Your task to perform on an android device: Search for seafood restaurants on Google Maps Image 0: 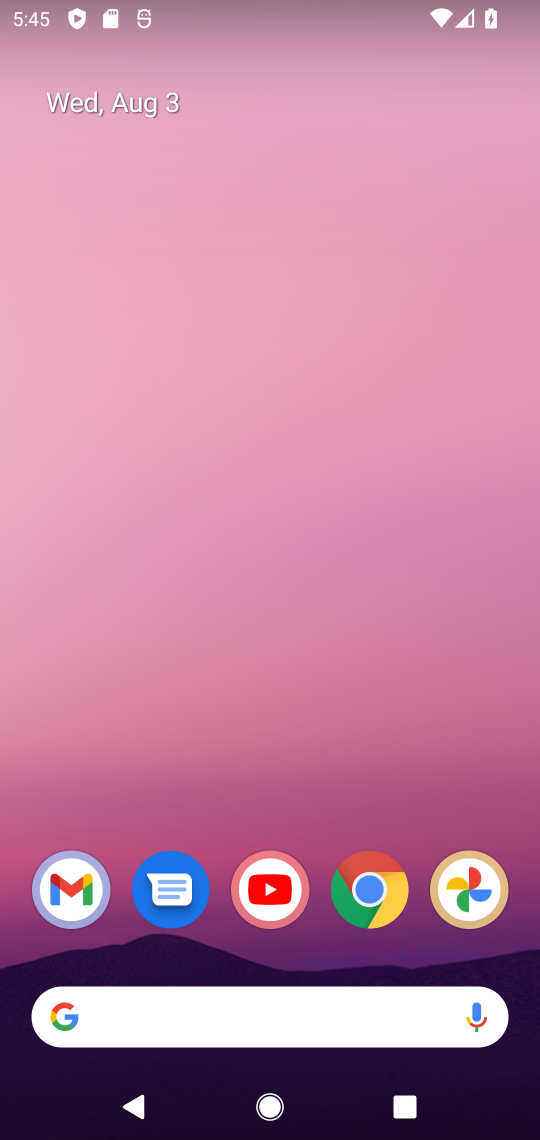
Step 0: drag from (258, 814) to (297, 12)
Your task to perform on an android device: Search for seafood restaurants on Google Maps Image 1: 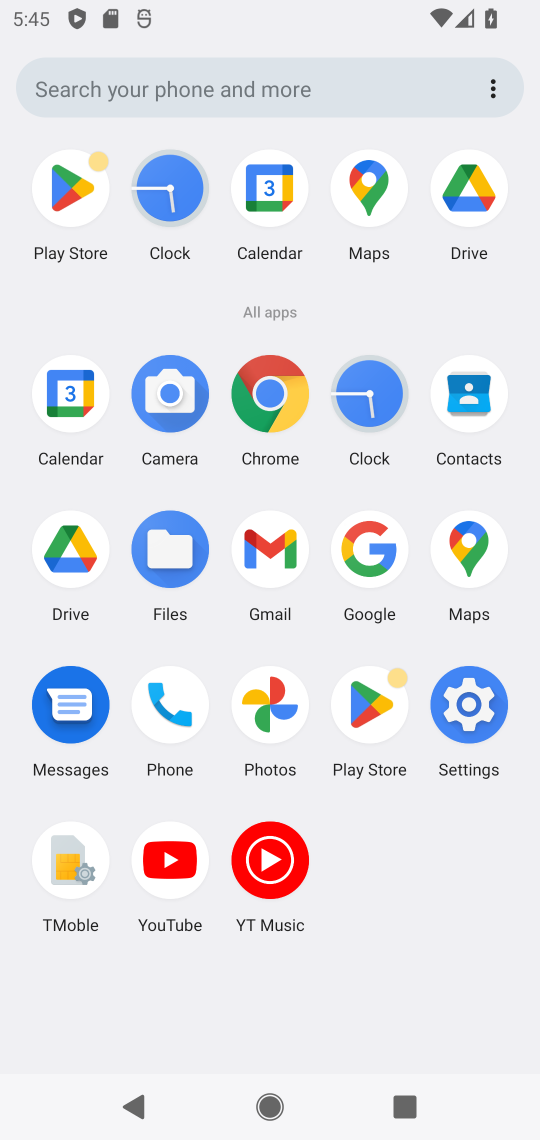
Step 1: click (372, 193)
Your task to perform on an android device: Search for seafood restaurants on Google Maps Image 2: 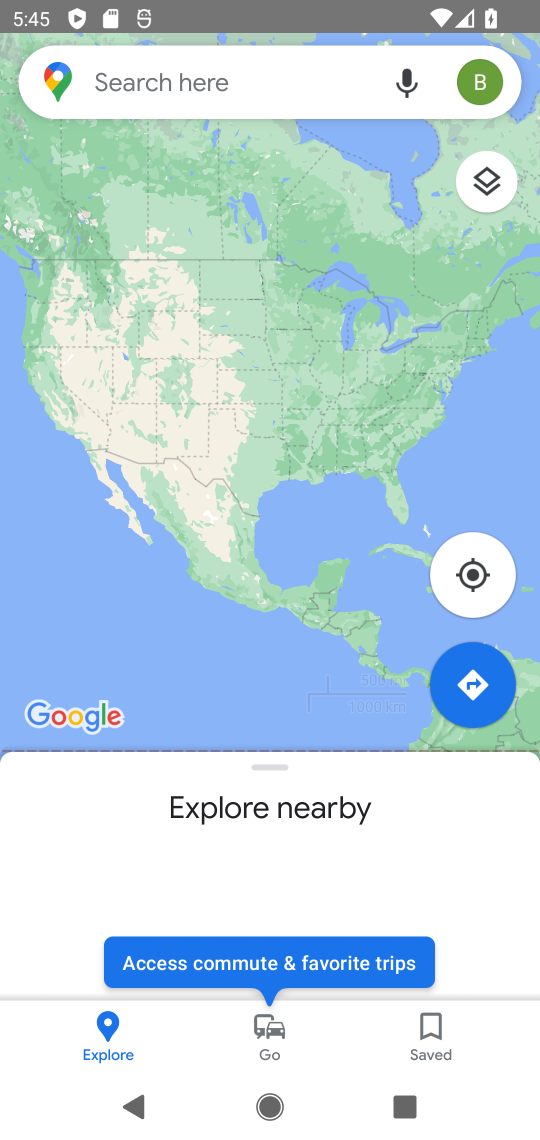
Step 2: click (324, 85)
Your task to perform on an android device: Search for seafood restaurants on Google Maps Image 3: 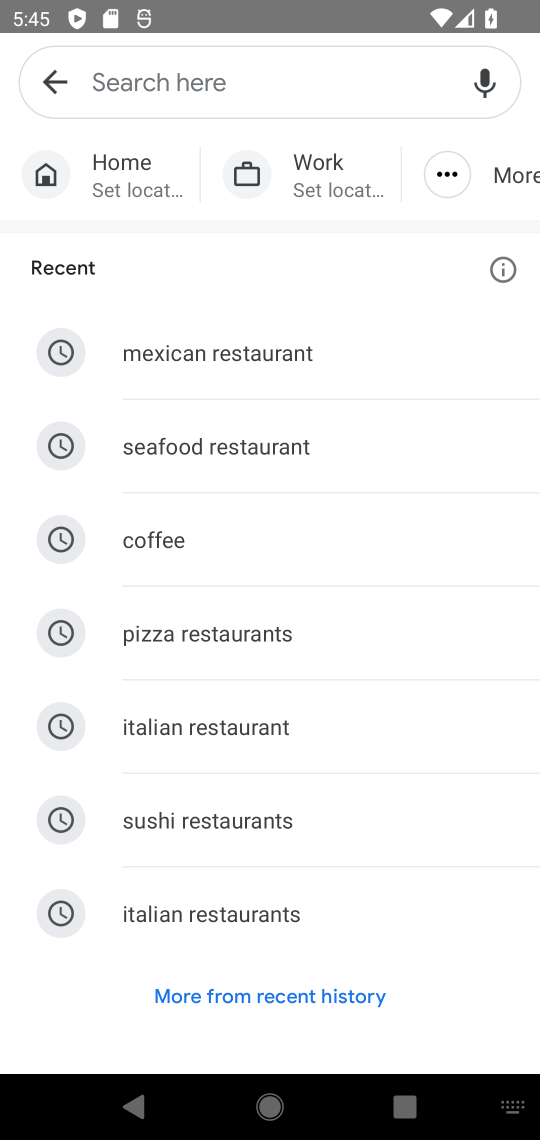
Step 3: click (305, 438)
Your task to perform on an android device: Search for seafood restaurants on Google Maps Image 4: 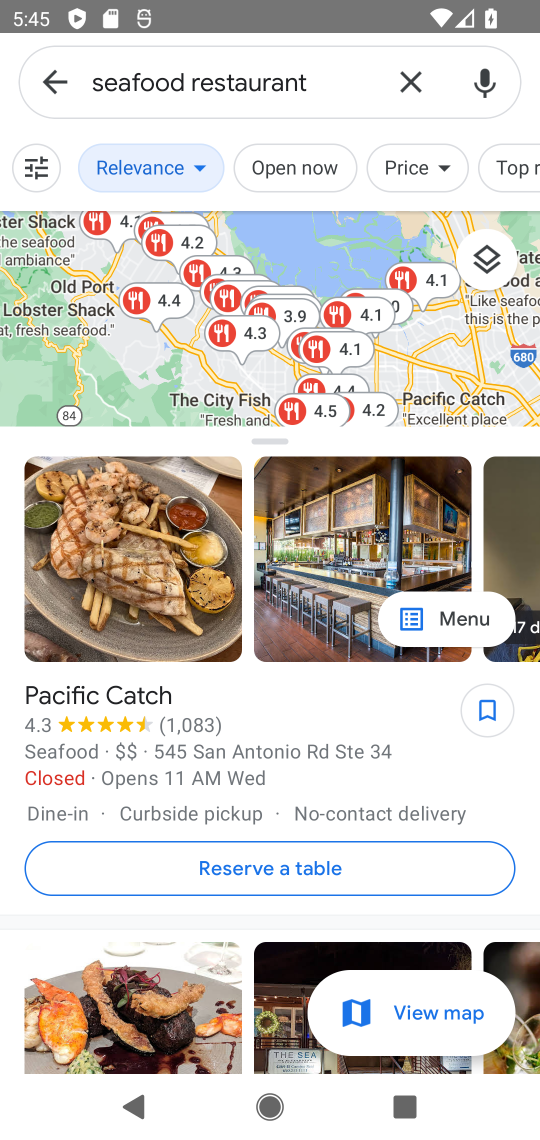
Step 4: task complete